Your task to perform on an android device: turn on improve location accuracy Image 0: 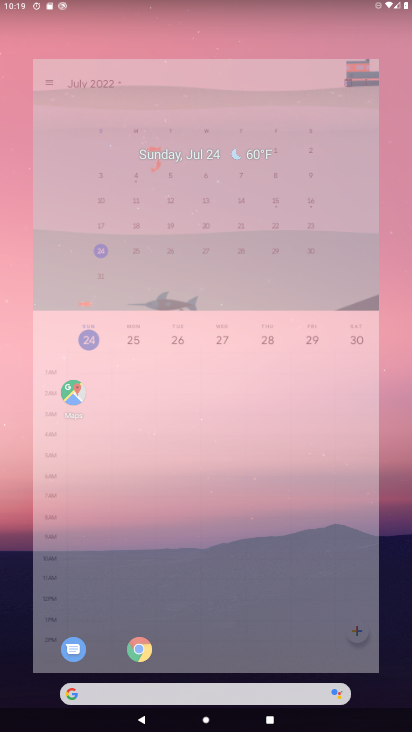
Step 0: drag from (317, 568) to (269, 89)
Your task to perform on an android device: turn on improve location accuracy Image 1: 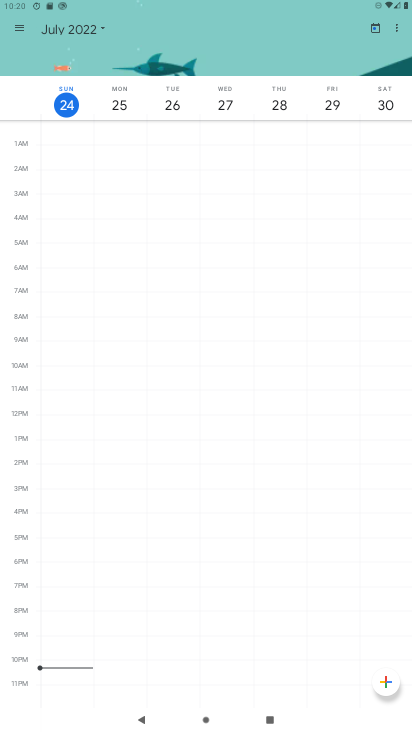
Step 1: press home button
Your task to perform on an android device: turn on improve location accuracy Image 2: 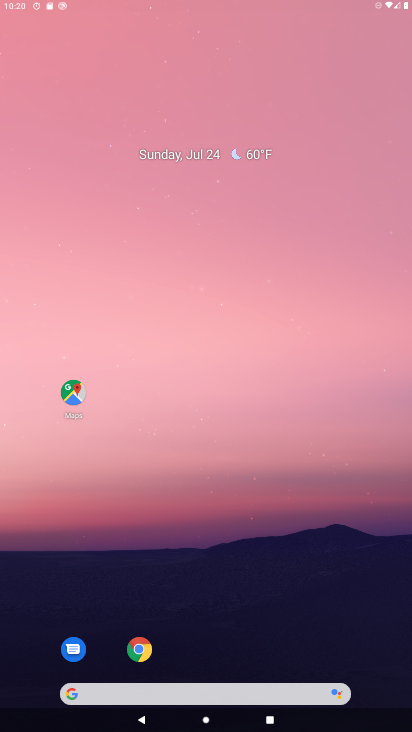
Step 2: drag from (320, 654) to (234, 19)
Your task to perform on an android device: turn on improve location accuracy Image 3: 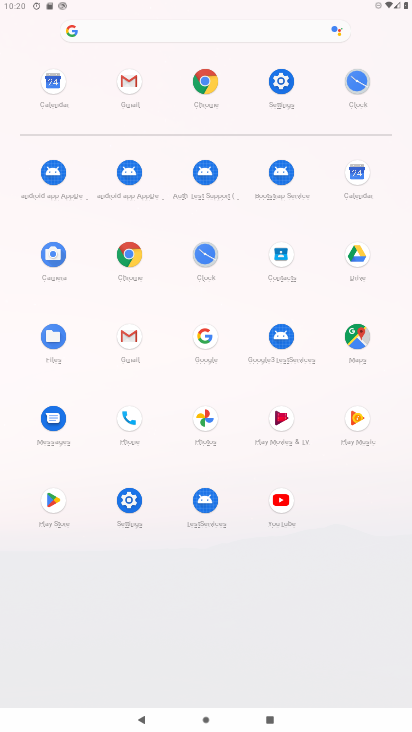
Step 3: click (285, 82)
Your task to perform on an android device: turn on improve location accuracy Image 4: 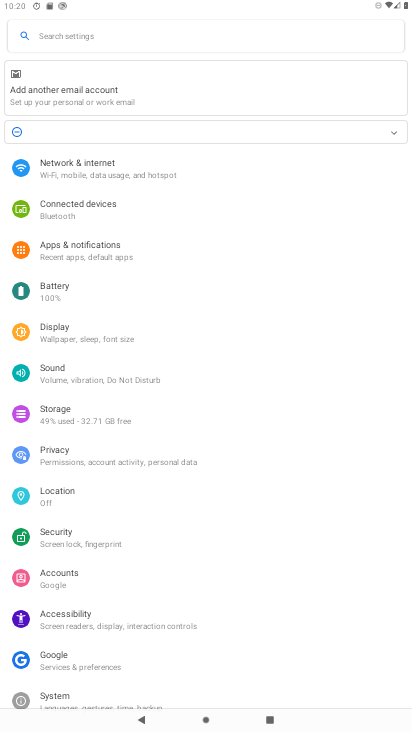
Step 4: click (56, 492)
Your task to perform on an android device: turn on improve location accuracy Image 5: 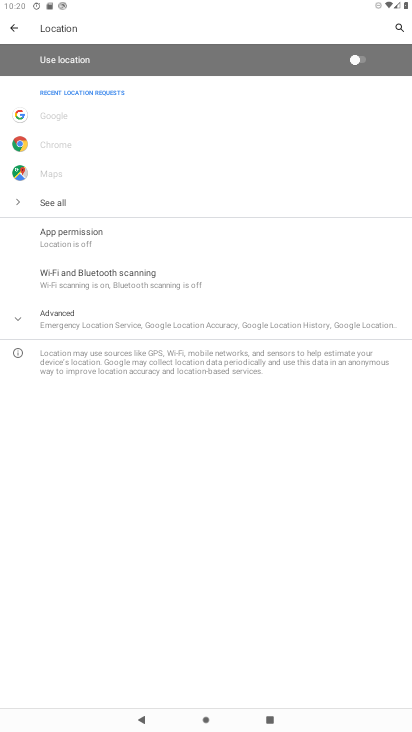
Step 5: click (83, 323)
Your task to perform on an android device: turn on improve location accuracy Image 6: 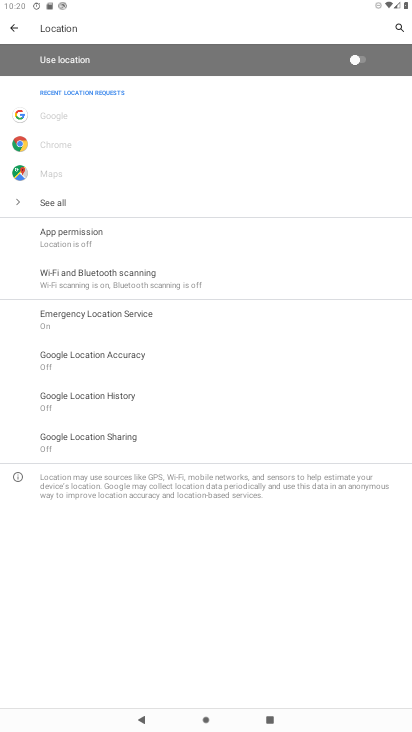
Step 6: click (108, 361)
Your task to perform on an android device: turn on improve location accuracy Image 7: 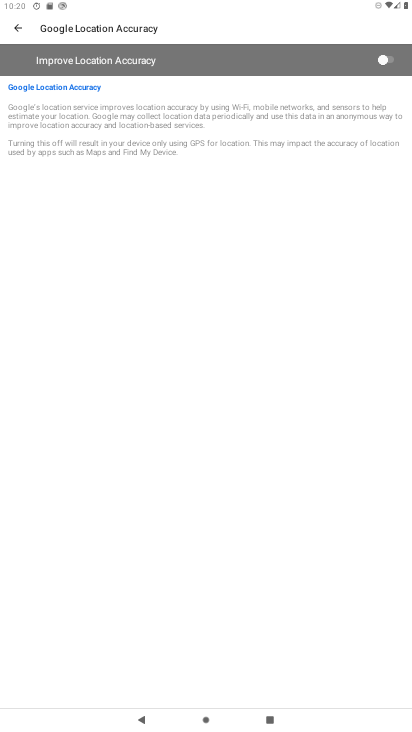
Step 7: click (393, 61)
Your task to perform on an android device: turn on improve location accuracy Image 8: 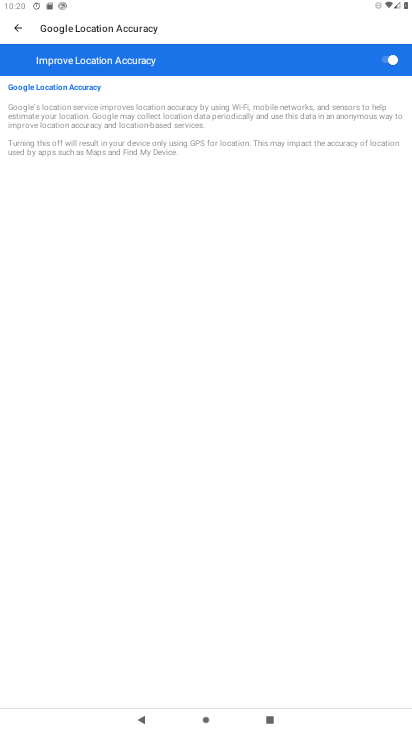
Step 8: task complete